Your task to perform on an android device: toggle location history Image 0: 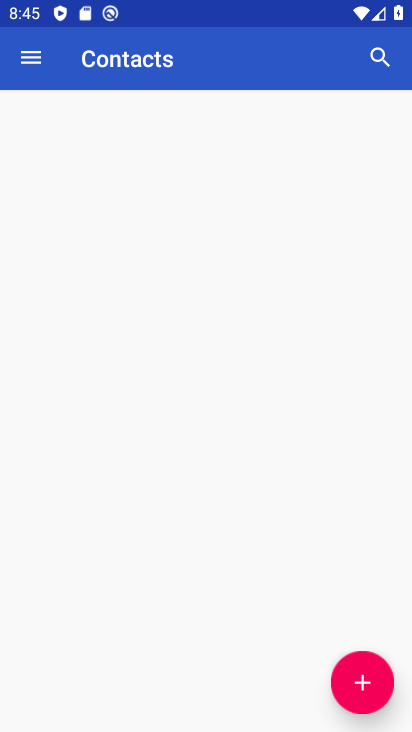
Step 0: press home button
Your task to perform on an android device: toggle location history Image 1: 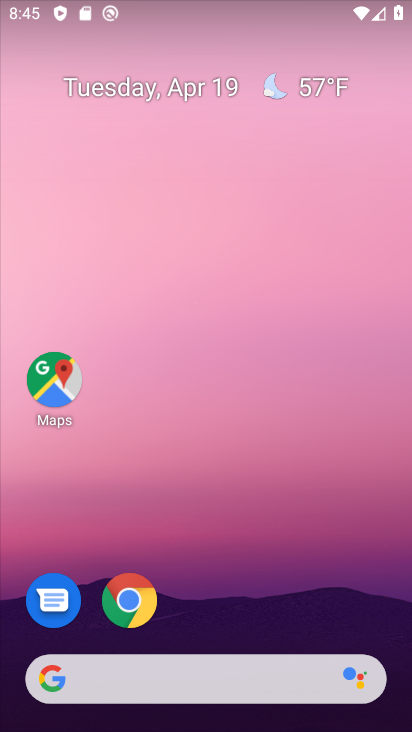
Step 1: drag from (364, 614) to (354, 41)
Your task to perform on an android device: toggle location history Image 2: 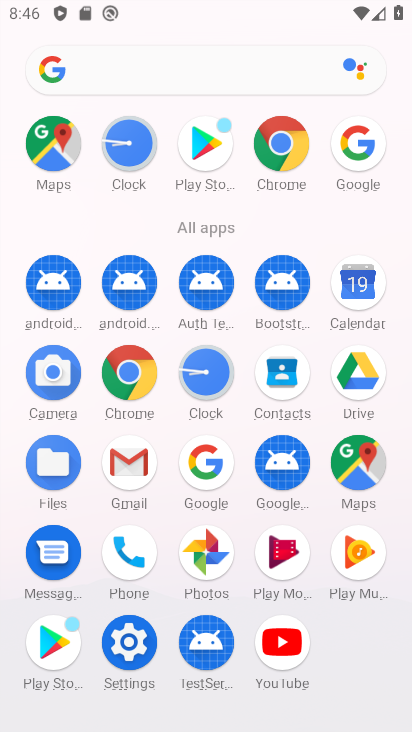
Step 2: click (135, 643)
Your task to perform on an android device: toggle location history Image 3: 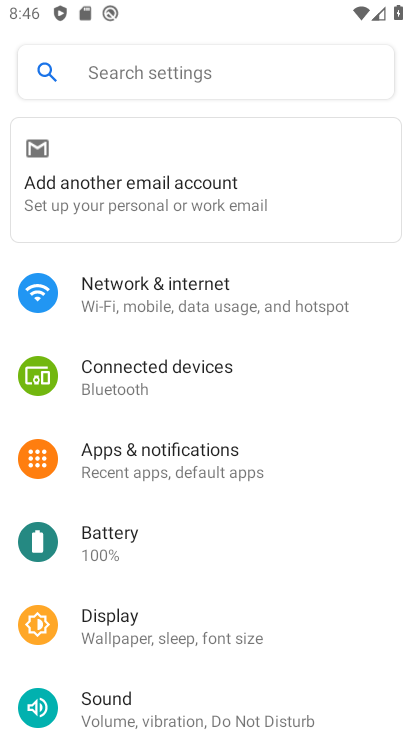
Step 3: drag from (353, 631) to (373, 400)
Your task to perform on an android device: toggle location history Image 4: 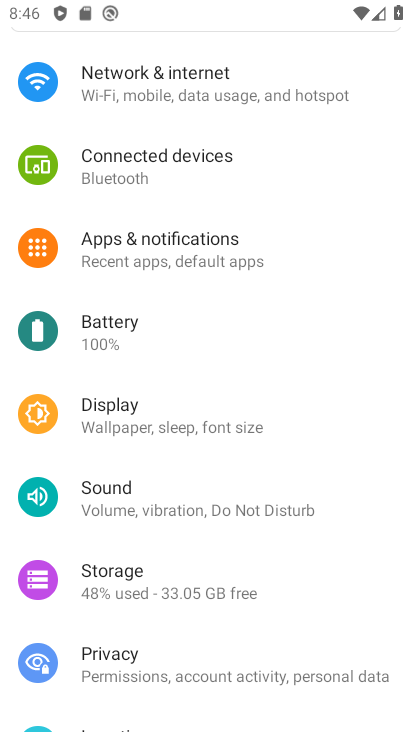
Step 4: drag from (352, 629) to (373, 341)
Your task to perform on an android device: toggle location history Image 5: 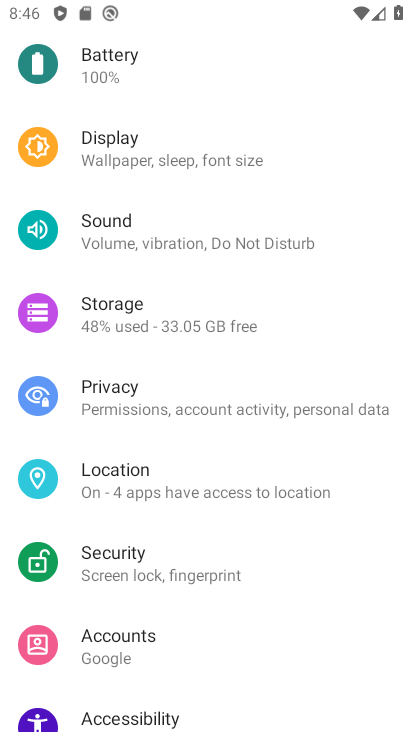
Step 5: drag from (373, 626) to (384, 358)
Your task to perform on an android device: toggle location history Image 6: 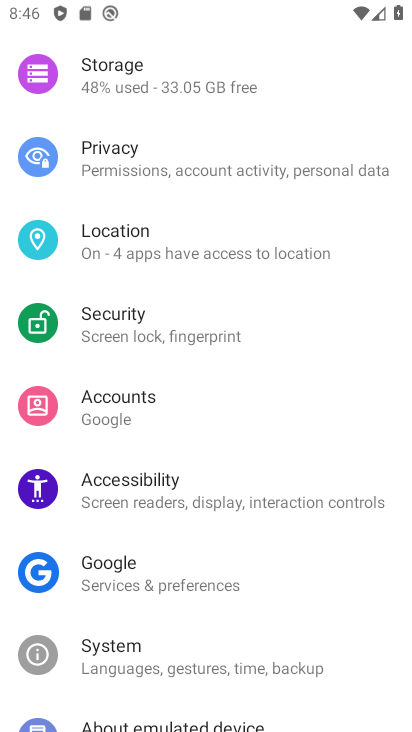
Step 6: drag from (365, 618) to (367, 286)
Your task to perform on an android device: toggle location history Image 7: 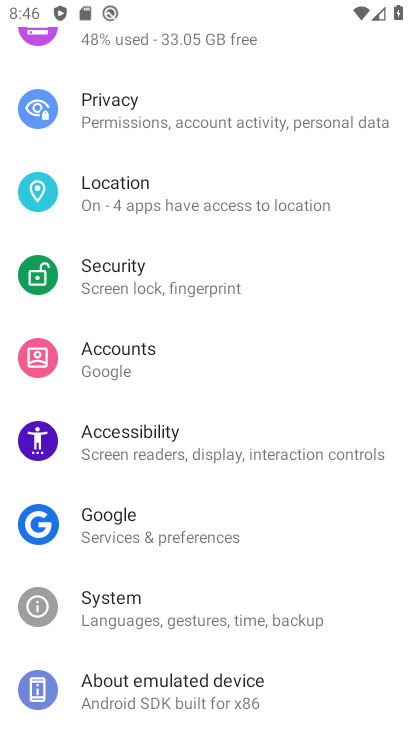
Step 7: click (218, 199)
Your task to perform on an android device: toggle location history Image 8: 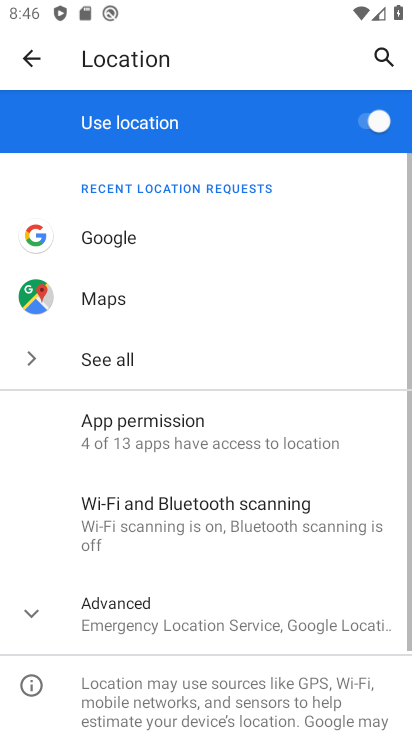
Step 8: click (199, 623)
Your task to perform on an android device: toggle location history Image 9: 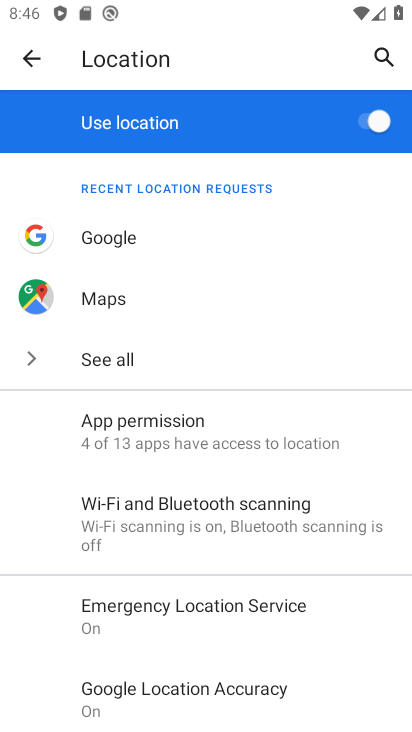
Step 9: drag from (357, 622) to (384, 341)
Your task to perform on an android device: toggle location history Image 10: 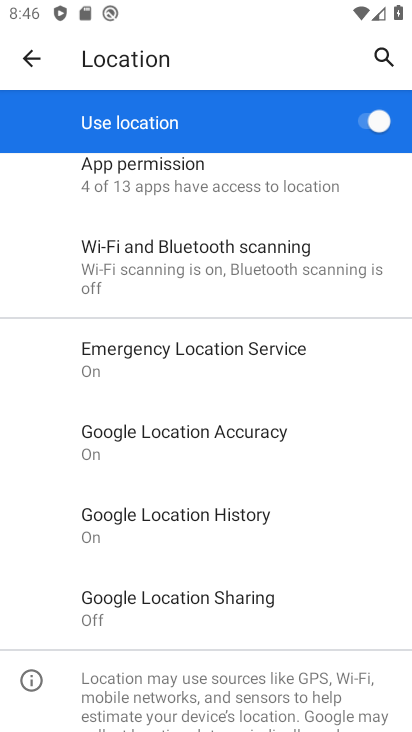
Step 10: click (205, 519)
Your task to perform on an android device: toggle location history Image 11: 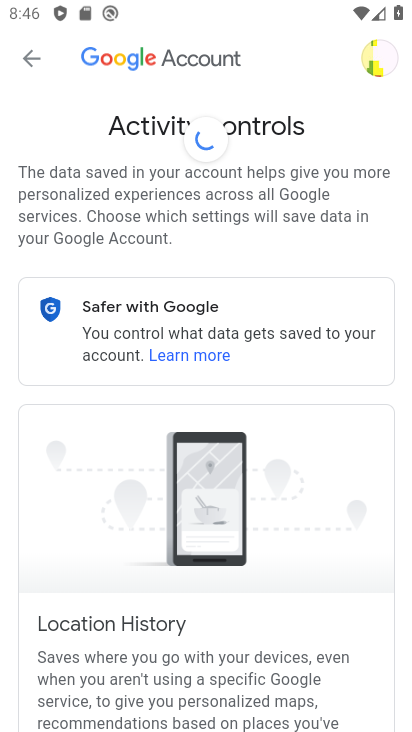
Step 11: drag from (297, 515) to (313, 314)
Your task to perform on an android device: toggle location history Image 12: 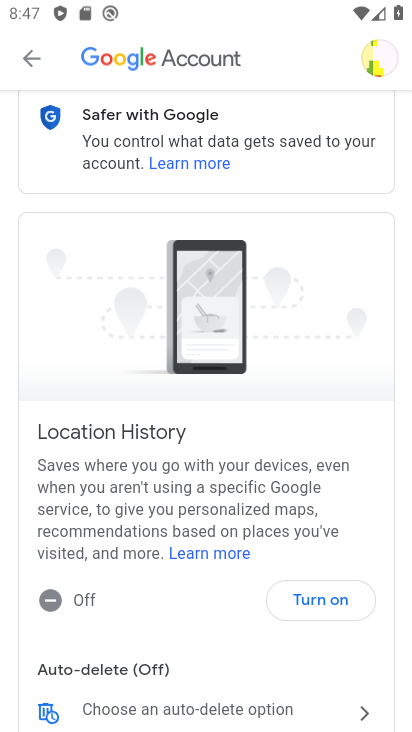
Step 12: drag from (229, 524) to (259, 266)
Your task to perform on an android device: toggle location history Image 13: 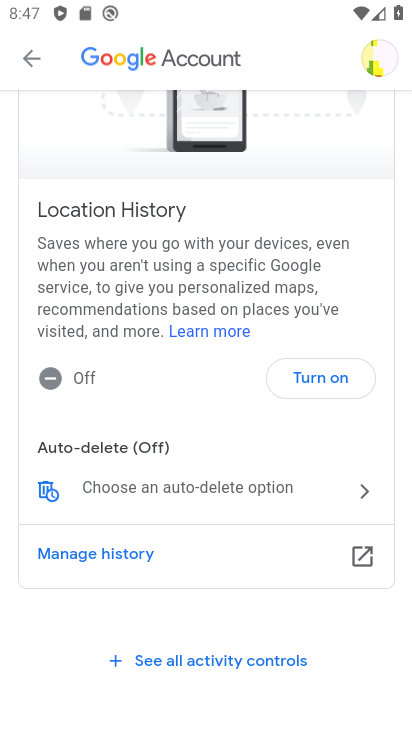
Step 13: click (71, 382)
Your task to perform on an android device: toggle location history Image 14: 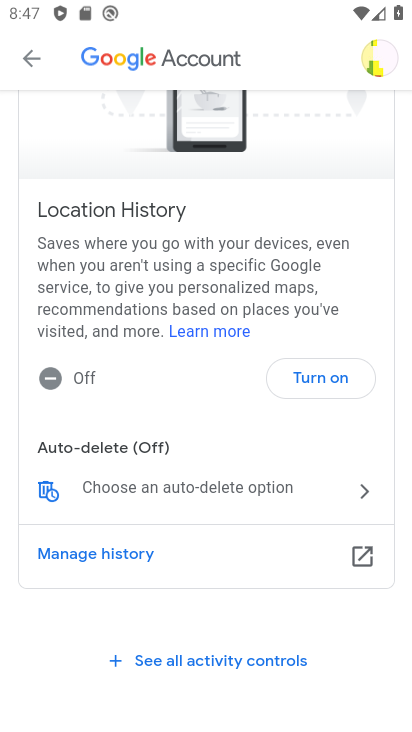
Step 14: task complete